Your task to perform on an android device: change notification settings in the gmail app Image 0: 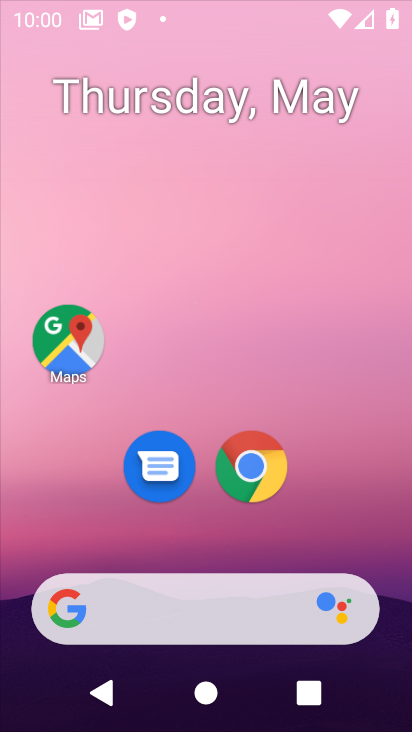
Step 0: drag from (342, 514) to (310, 84)
Your task to perform on an android device: change notification settings in the gmail app Image 1: 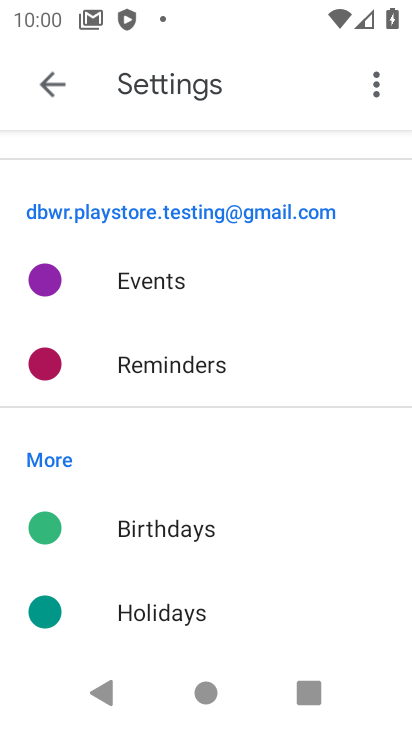
Step 1: press home button
Your task to perform on an android device: change notification settings in the gmail app Image 2: 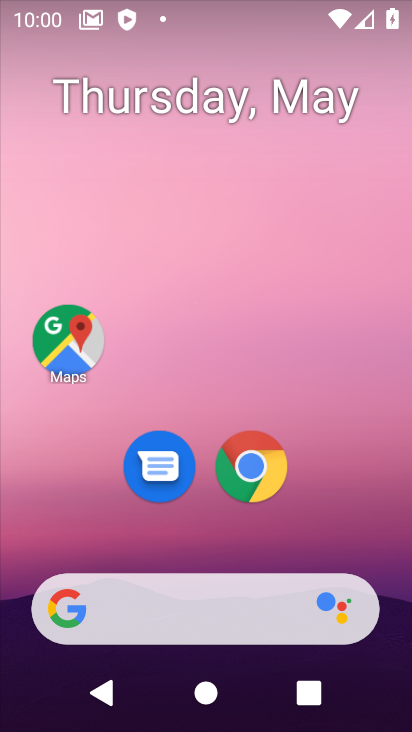
Step 2: drag from (353, 572) to (339, 59)
Your task to perform on an android device: change notification settings in the gmail app Image 3: 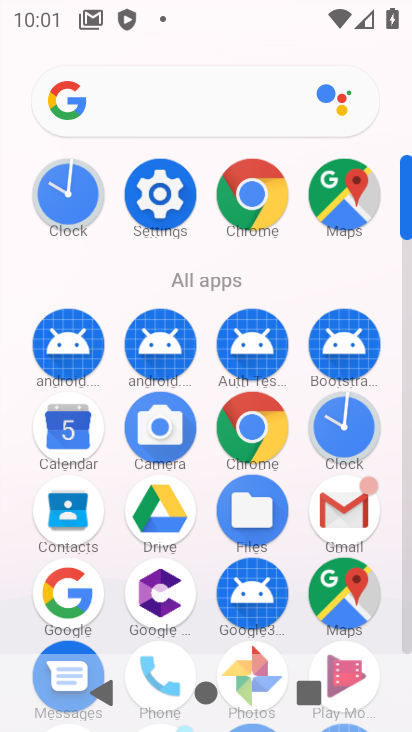
Step 3: click (354, 517)
Your task to perform on an android device: change notification settings in the gmail app Image 4: 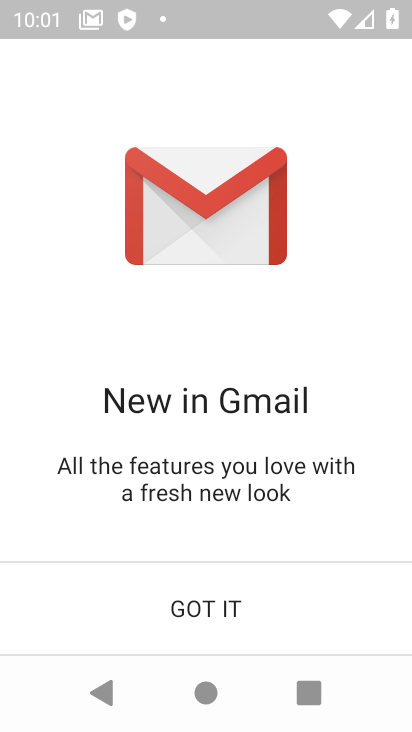
Step 4: click (185, 591)
Your task to perform on an android device: change notification settings in the gmail app Image 5: 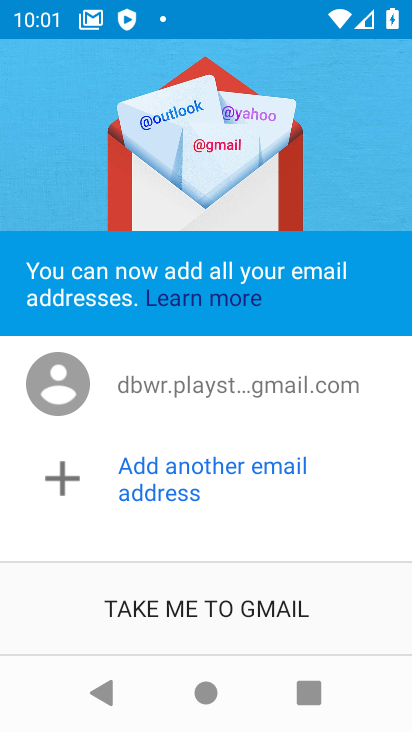
Step 5: click (202, 605)
Your task to perform on an android device: change notification settings in the gmail app Image 6: 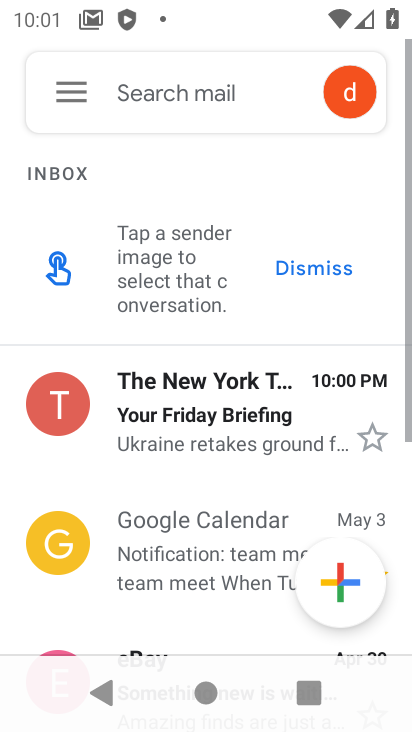
Step 6: click (82, 86)
Your task to perform on an android device: change notification settings in the gmail app Image 7: 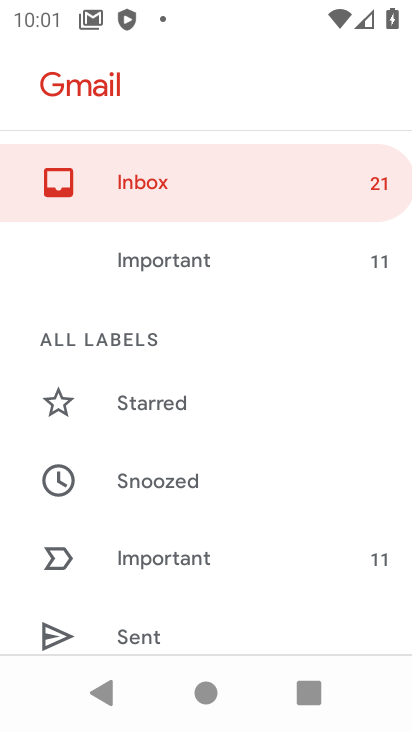
Step 7: drag from (258, 616) to (266, 30)
Your task to perform on an android device: change notification settings in the gmail app Image 8: 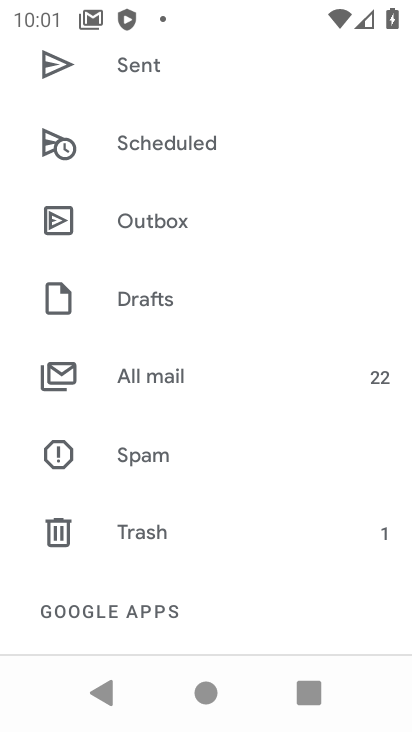
Step 8: drag from (184, 605) to (228, 170)
Your task to perform on an android device: change notification settings in the gmail app Image 9: 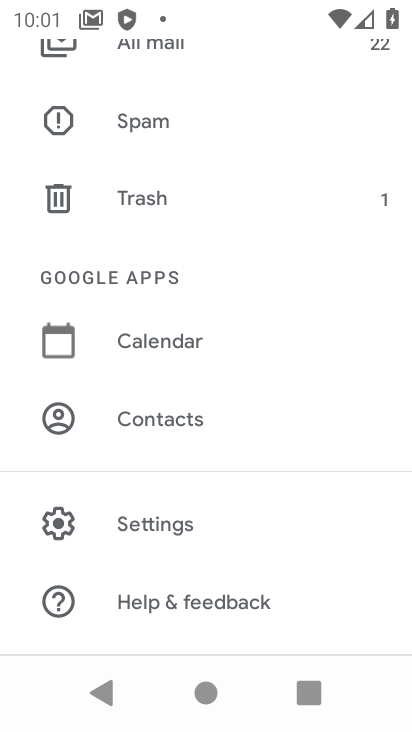
Step 9: click (150, 530)
Your task to perform on an android device: change notification settings in the gmail app Image 10: 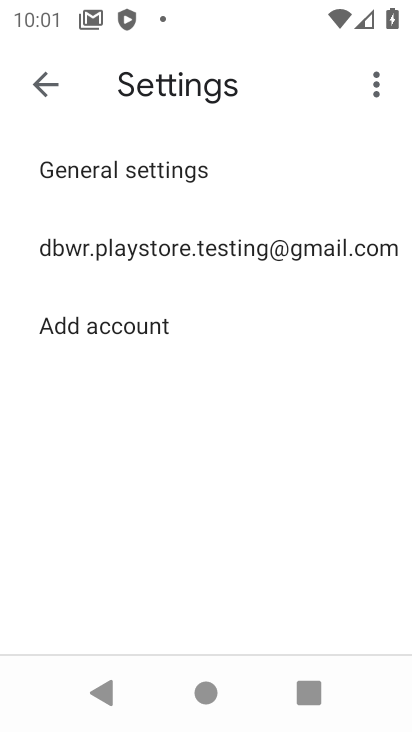
Step 10: click (182, 240)
Your task to perform on an android device: change notification settings in the gmail app Image 11: 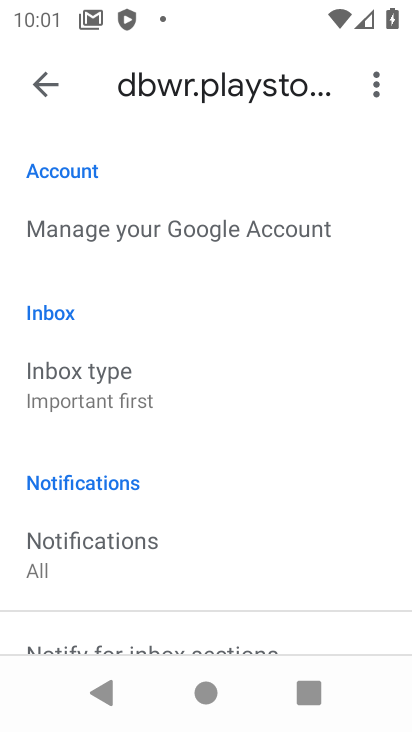
Step 11: click (87, 548)
Your task to perform on an android device: change notification settings in the gmail app Image 12: 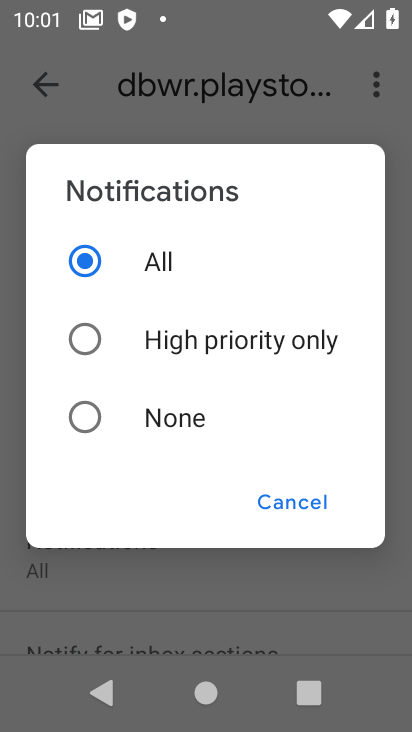
Step 12: click (308, 494)
Your task to perform on an android device: change notification settings in the gmail app Image 13: 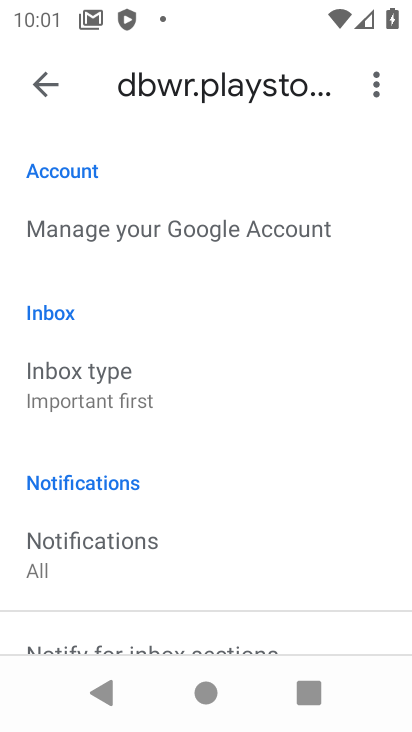
Step 13: drag from (234, 566) to (257, 226)
Your task to perform on an android device: change notification settings in the gmail app Image 14: 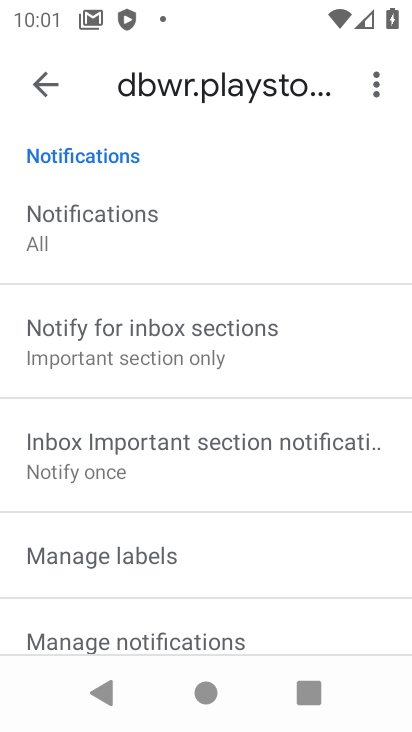
Step 14: click (138, 628)
Your task to perform on an android device: change notification settings in the gmail app Image 15: 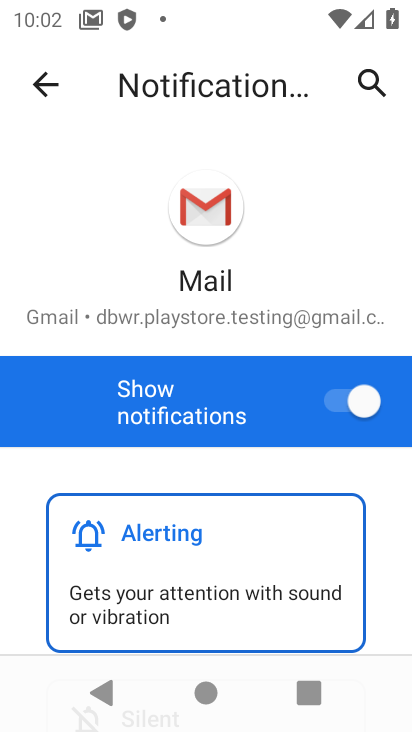
Step 15: click (343, 411)
Your task to perform on an android device: change notification settings in the gmail app Image 16: 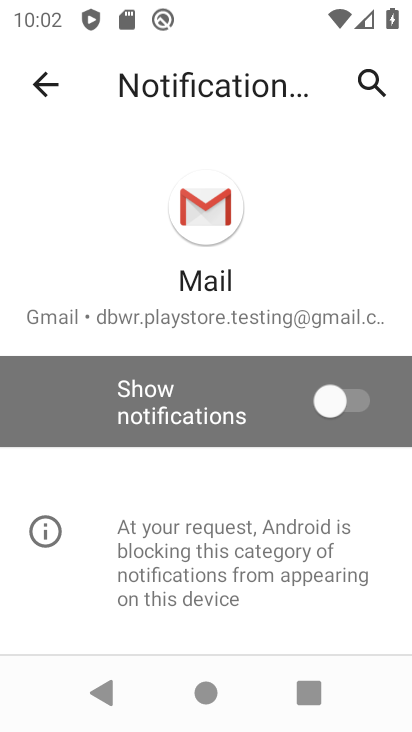
Step 16: task complete